Your task to perform on an android device: change your default location settings in chrome Image 0: 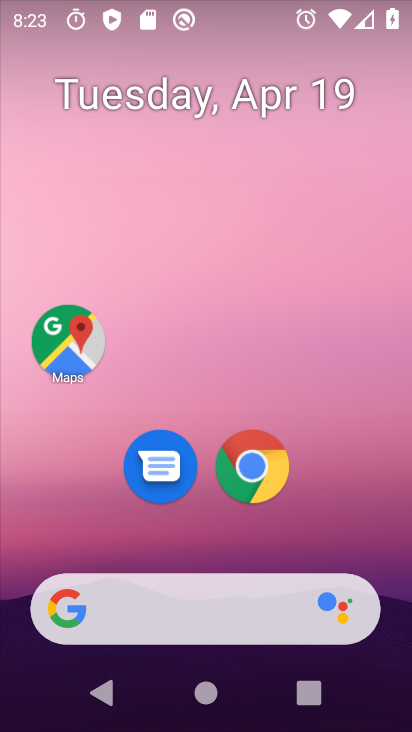
Step 0: drag from (388, 489) to (321, 23)
Your task to perform on an android device: change your default location settings in chrome Image 1: 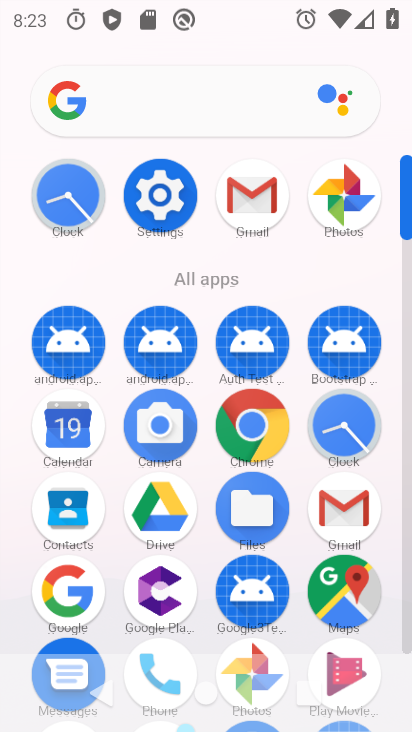
Step 1: click (247, 451)
Your task to perform on an android device: change your default location settings in chrome Image 2: 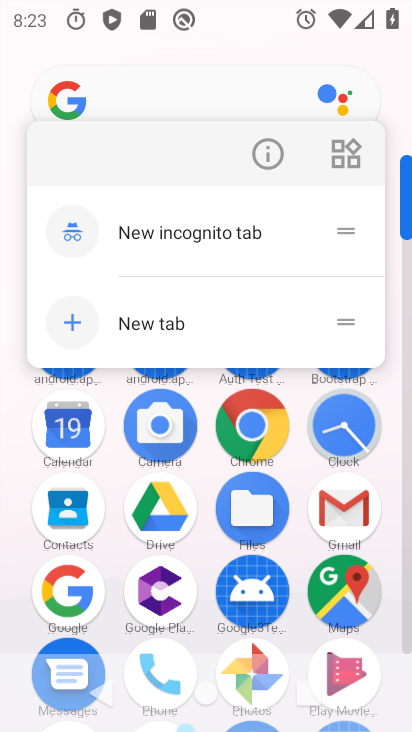
Step 2: click (237, 431)
Your task to perform on an android device: change your default location settings in chrome Image 3: 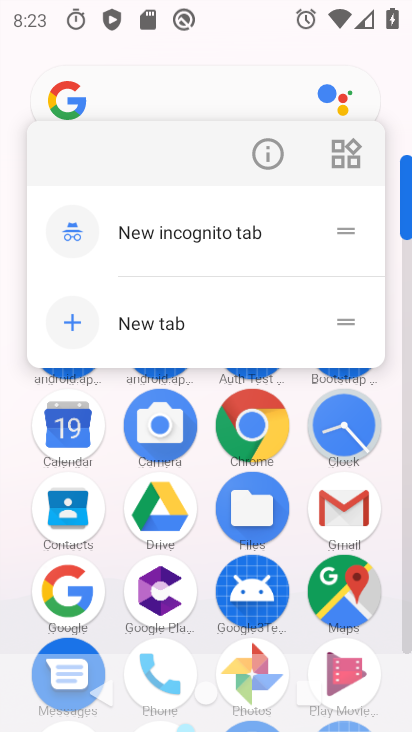
Step 3: click (235, 427)
Your task to perform on an android device: change your default location settings in chrome Image 4: 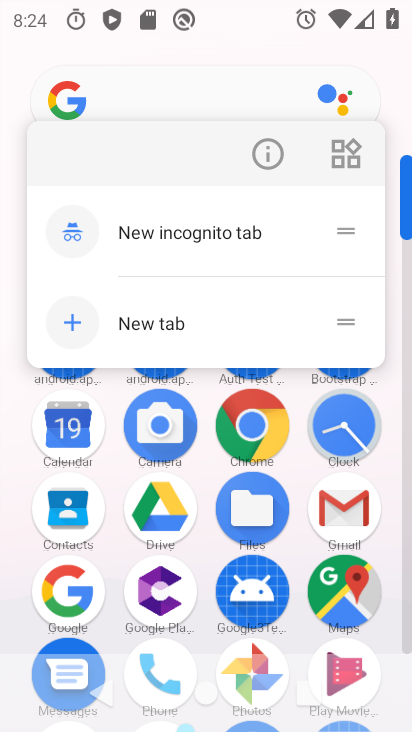
Step 4: click (235, 427)
Your task to perform on an android device: change your default location settings in chrome Image 5: 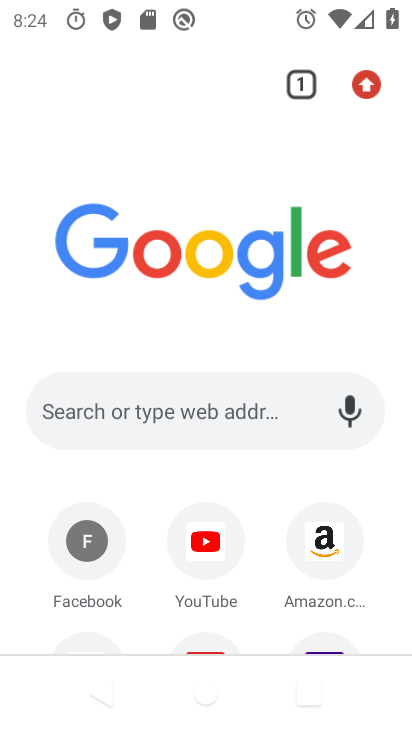
Step 5: click (367, 82)
Your task to perform on an android device: change your default location settings in chrome Image 6: 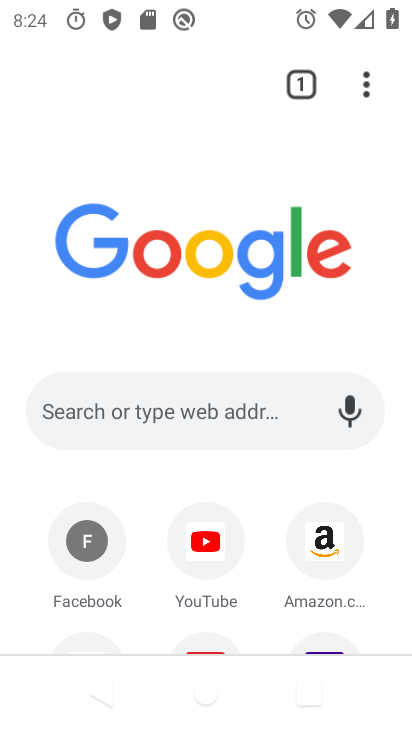
Step 6: drag from (376, 88) to (170, 517)
Your task to perform on an android device: change your default location settings in chrome Image 7: 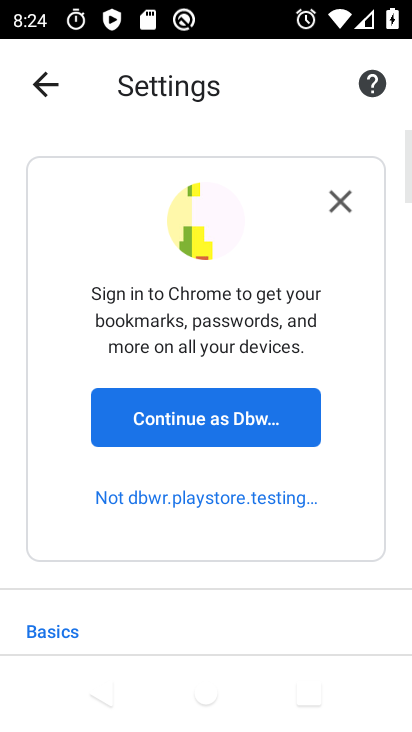
Step 7: drag from (188, 576) to (241, 190)
Your task to perform on an android device: change your default location settings in chrome Image 8: 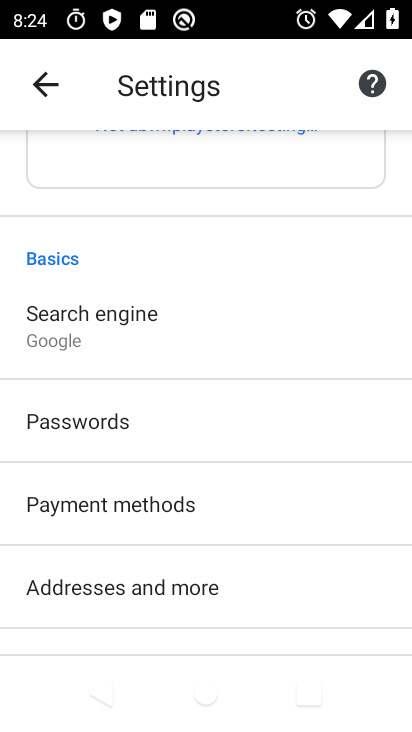
Step 8: drag from (174, 565) to (185, 475)
Your task to perform on an android device: change your default location settings in chrome Image 9: 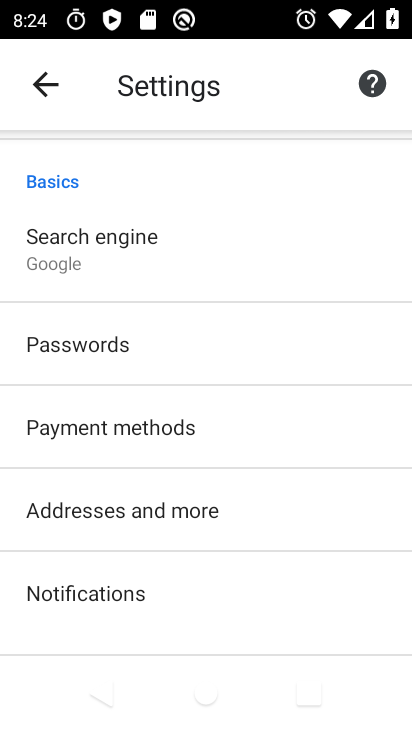
Step 9: drag from (151, 584) to (184, 190)
Your task to perform on an android device: change your default location settings in chrome Image 10: 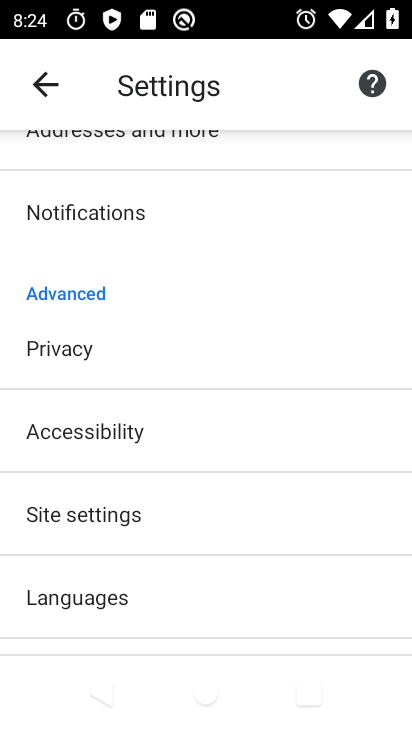
Step 10: drag from (168, 582) to (192, 207)
Your task to perform on an android device: change your default location settings in chrome Image 11: 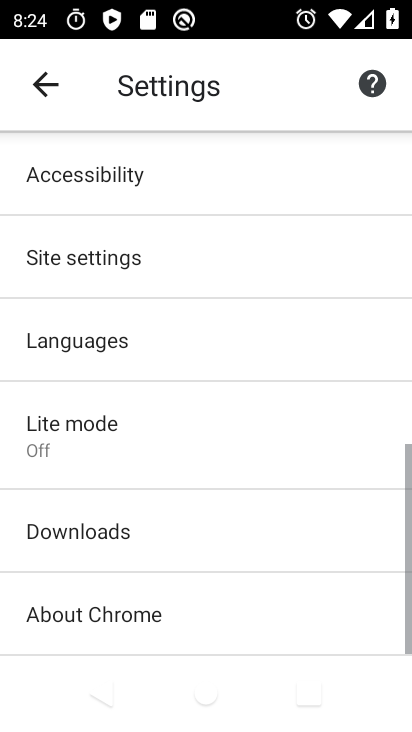
Step 11: drag from (158, 596) to (223, 258)
Your task to perform on an android device: change your default location settings in chrome Image 12: 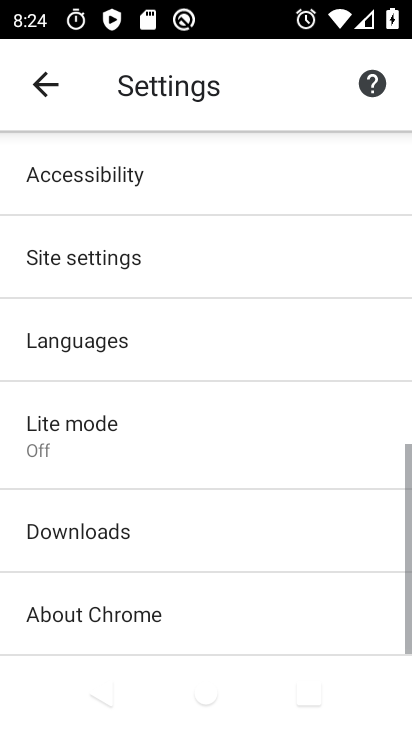
Step 12: drag from (223, 310) to (181, 668)
Your task to perform on an android device: change your default location settings in chrome Image 13: 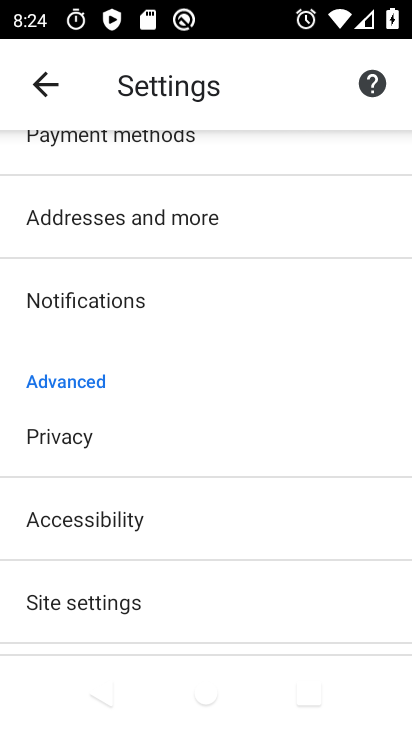
Step 13: drag from (192, 228) to (147, 613)
Your task to perform on an android device: change your default location settings in chrome Image 14: 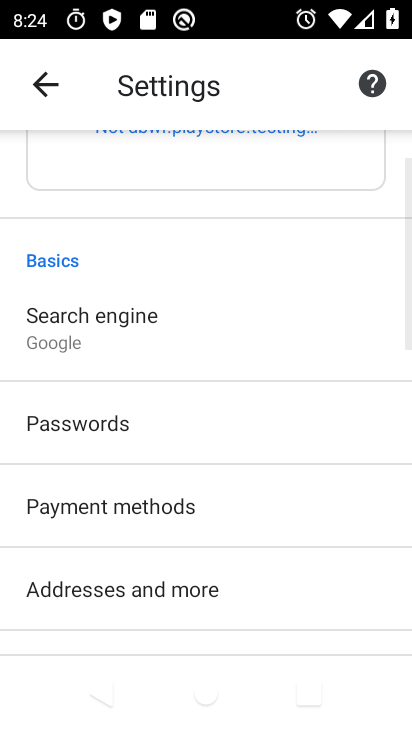
Step 14: drag from (172, 196) to (173, 602)
Your task to perform on an android device: change your default location settings in chrome Image 15: 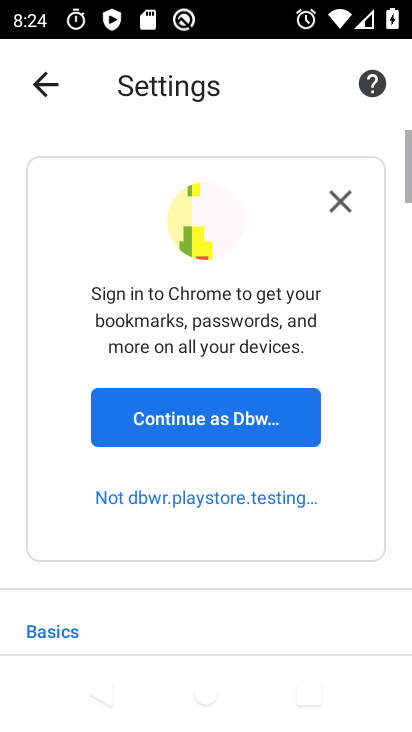
Step 15: drag from (173, 602) to (191, 240)
Your task to perform on an android device: change your default location settings in chrome Image 16: 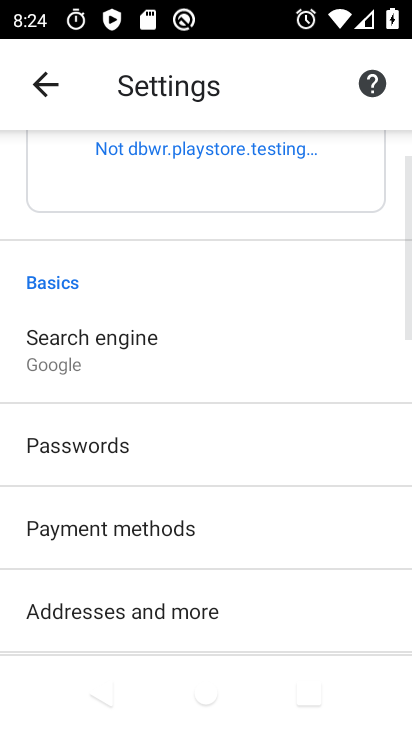
Step 16: drag from (109, 562) to (168, 338)
Your task to perform on an android device: change your default location settings in chrome Image 17: 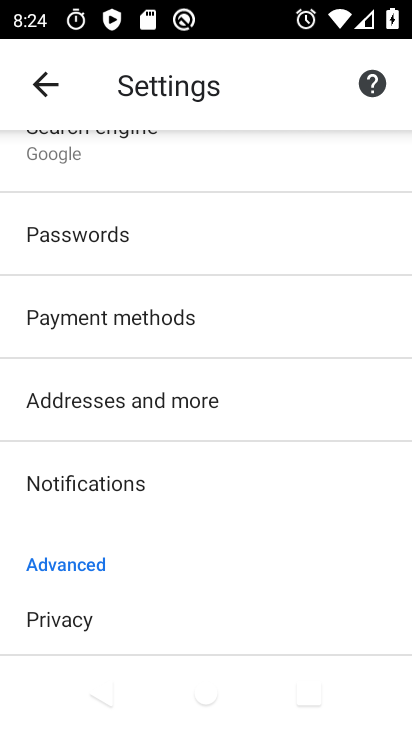
Step 17: drag from (158, 598) to (196, 221)
Your task to perform on an android device: change your default location settings in chrome Image 18: 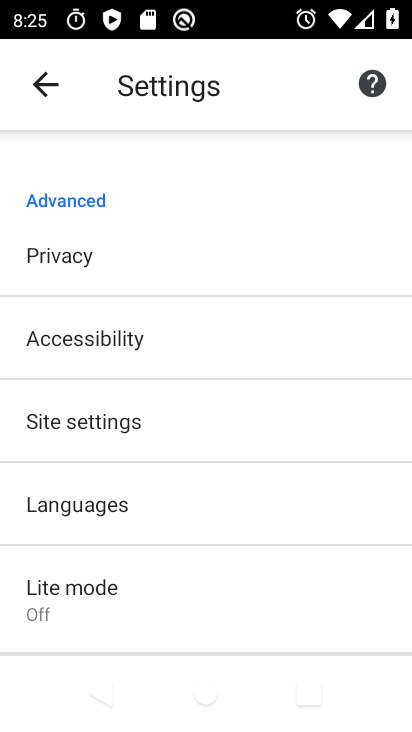
Step 18: click (121, 425)
Your task to perform on an android device: change your default location settings in chrome Image 19: 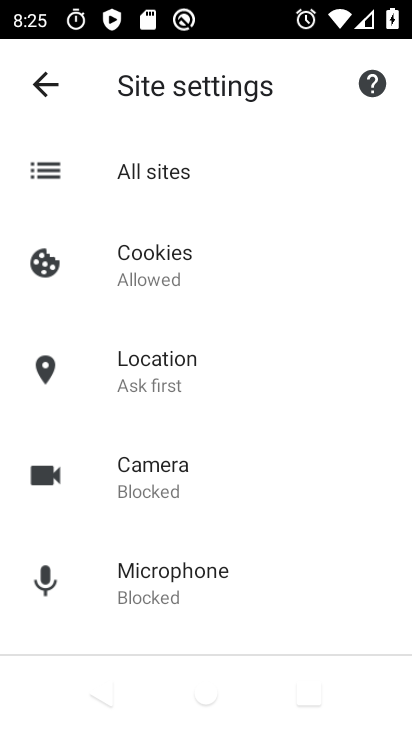
Step 19: click (137, 340)
Your task to perform on an android device: change your default location settings in chrome Image 20: 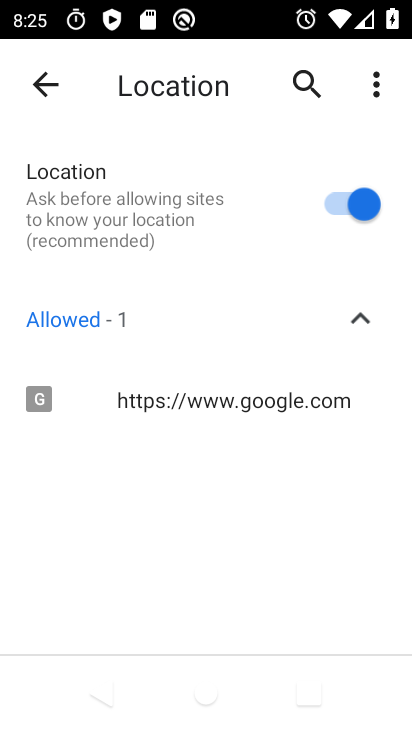
Step 20: click (315, 204)
Your task to perform on an android device: change your default location settings in chrome Image 21: 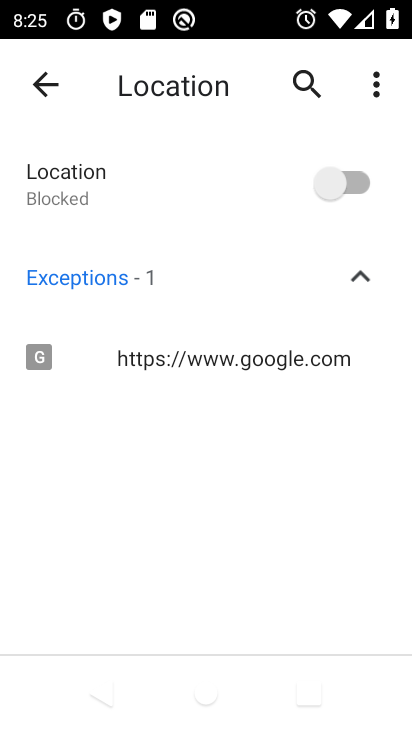
Step 21: task complete